Your task to perform on an android device: open app "Spotify: Music and Podcasts" Image 0: 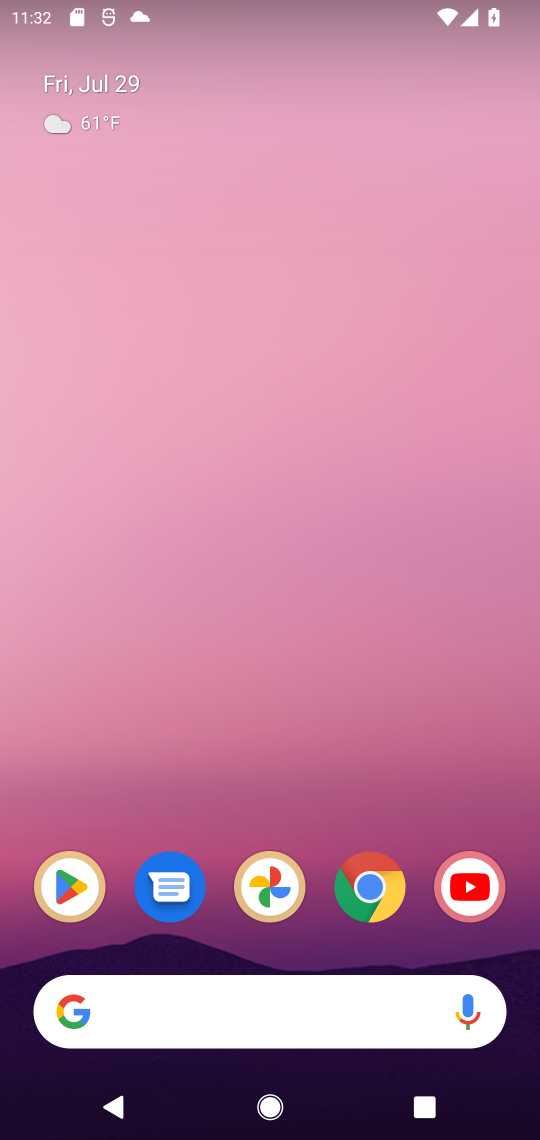
Step 0: drag from (231, 1001) to (373, 121)
Your task to perform on an android device: open app "Spotify: Music and Podcasts" Image 1: 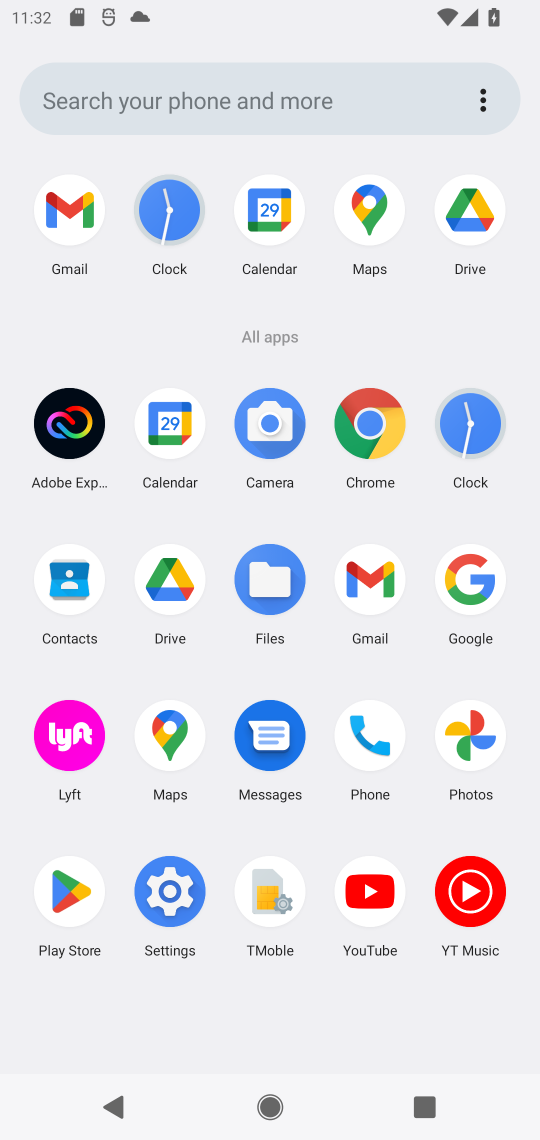
Step 1: click (65, 886)
Your task to perform on an android device: open app "Spotify: Music and Podcasts" Image 2: 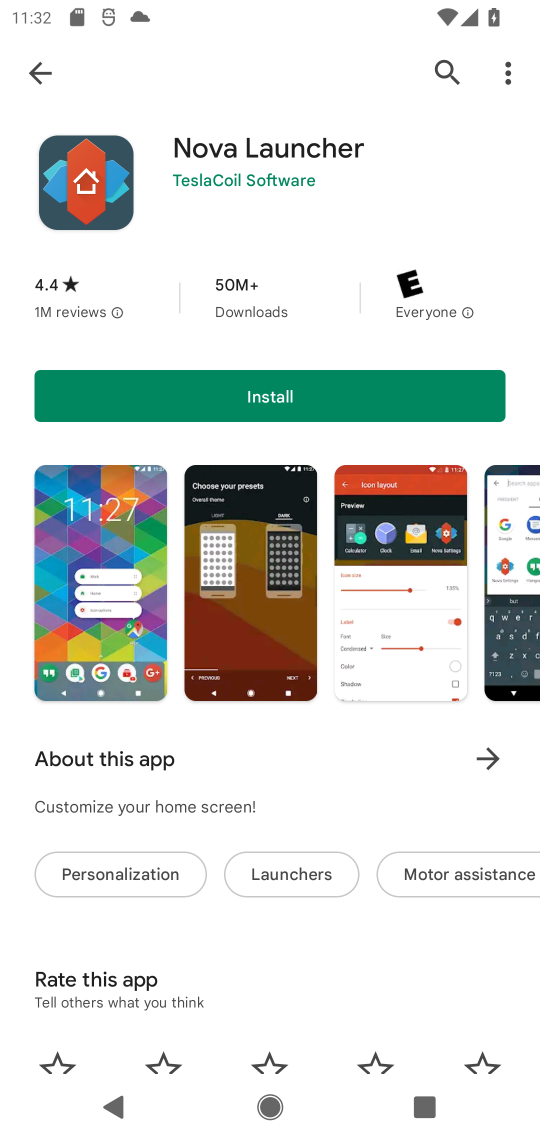
Step 2: click (443, 76)
Your task to perform on an android device: open app "Spotify: Music and Podcasts" Image 3: 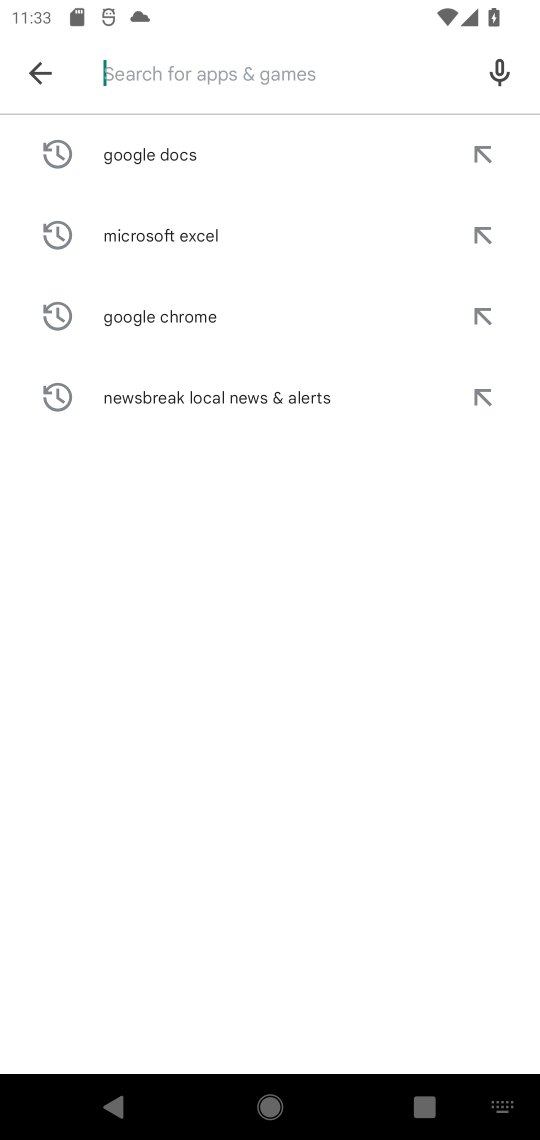
Step 3: type "Spotify: Music and Podcasts"
Your task to perform on an android device: open app "Spotify: Music and Podcasts" Image 4: 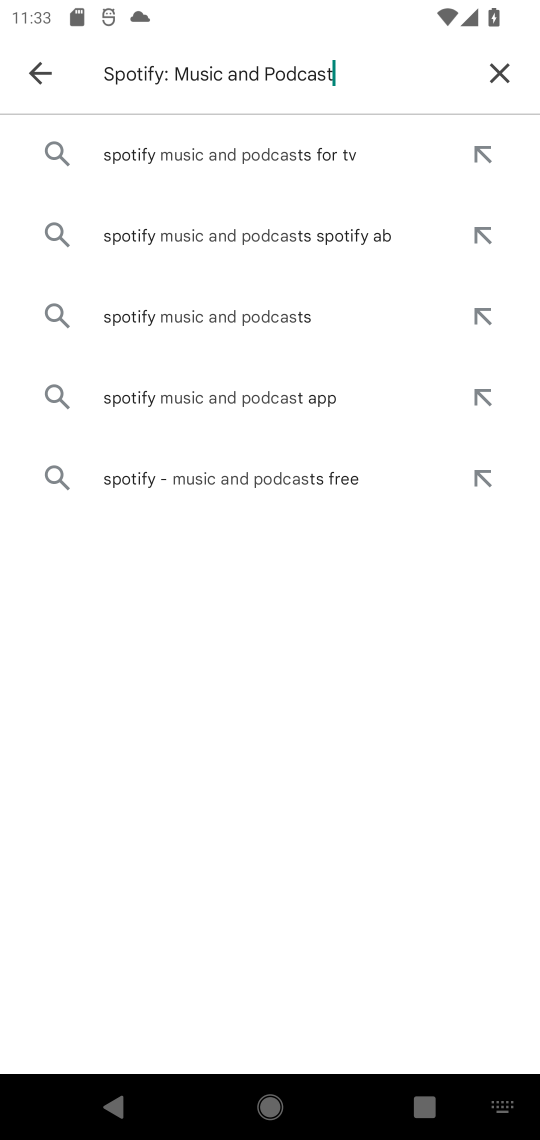
Step 4: type ""
Your task to perform on an android device: open app "Spotify: Music and Podcasts" Image 5: 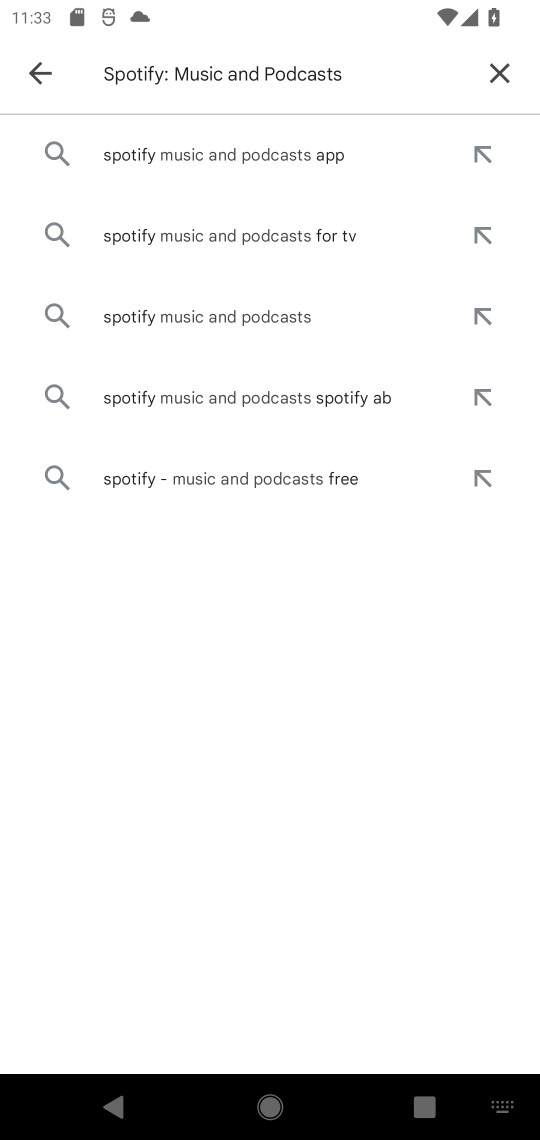
Step 5: click (186, 167)
Your task to perform on an android device: open app "Spotify: Music and Podcasts" Image 6: 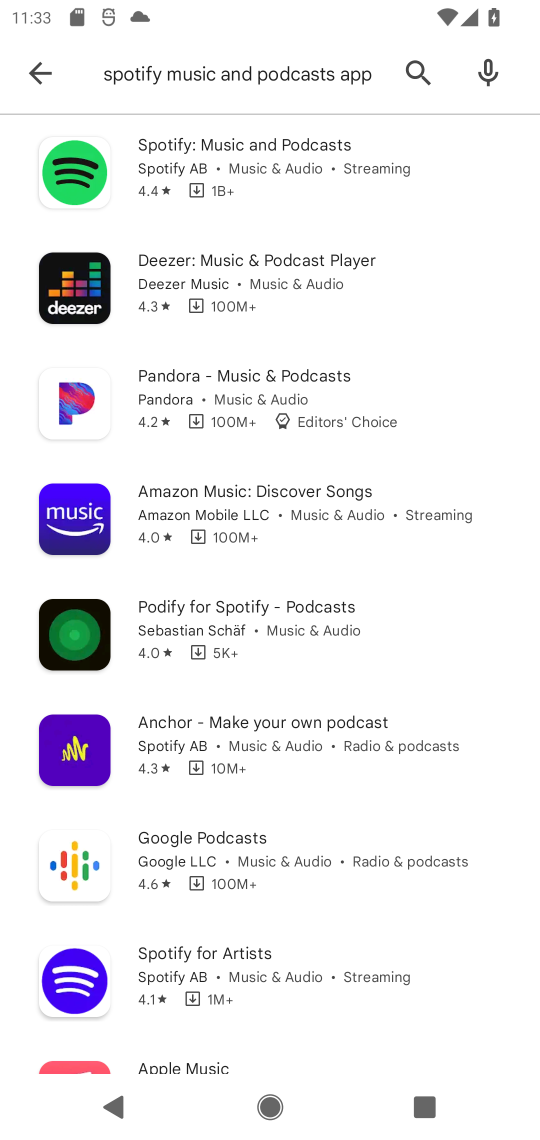
Step 6: click (202, 152)
Your task to perform on an android device: open app "Spotify: Music and Podcasts" Image 7: 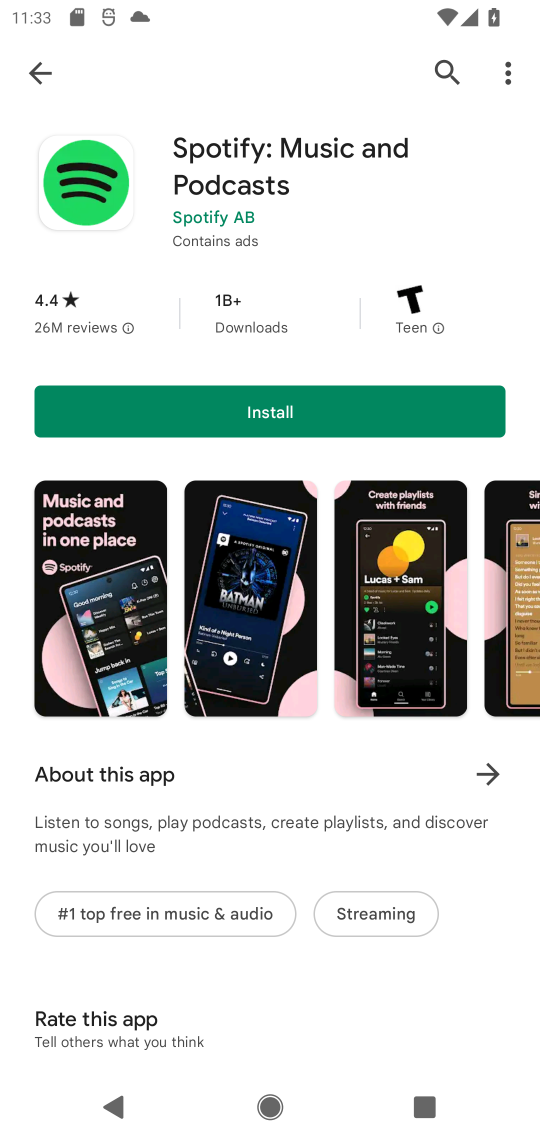
Step 7: task complete